Your task to perform on an android device: create a new album in the google photos Image 0: 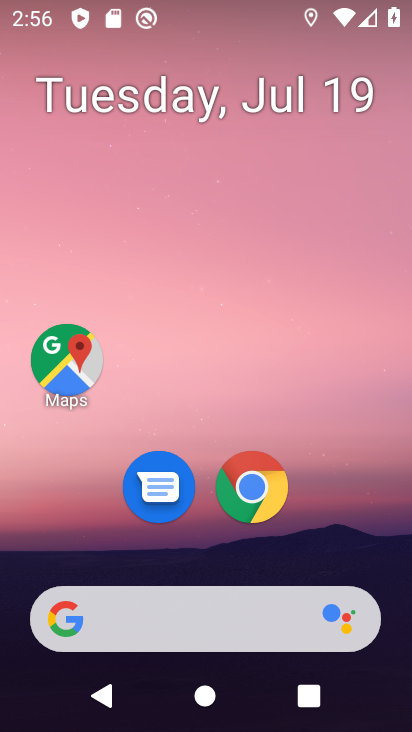
Step 0: drag from (195, 532) to (263, 0)
Your task to perform on an android device: create a new album in the google photos Image 1: 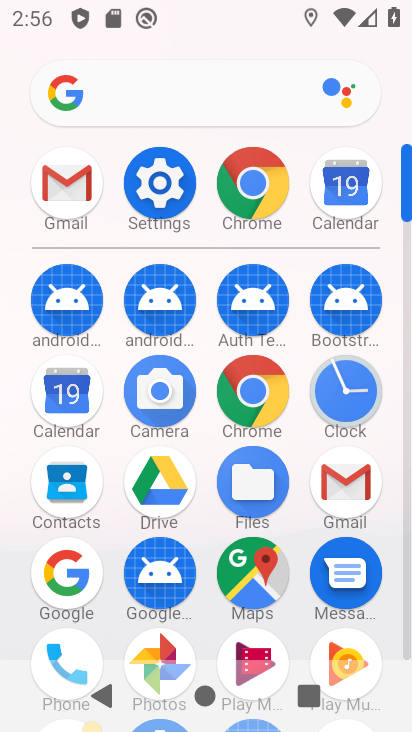
Step 1: click (166, 645)
Your task to perform on an android device: create a new album in the google photos Image 2: 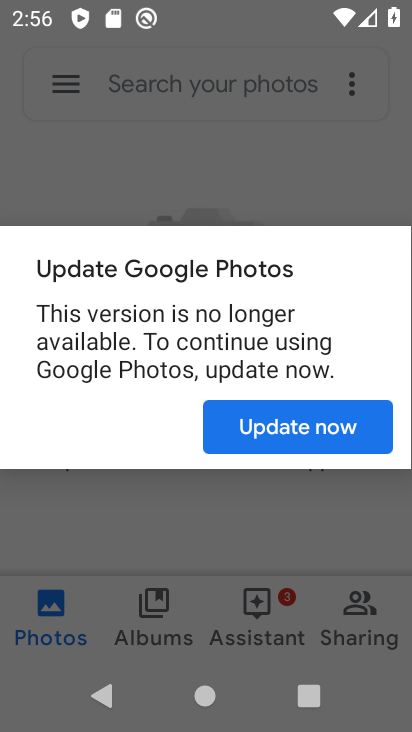
Step 2: click (236, 452)
Your task to perform on an android device: create a new album in the google photos Image 3: 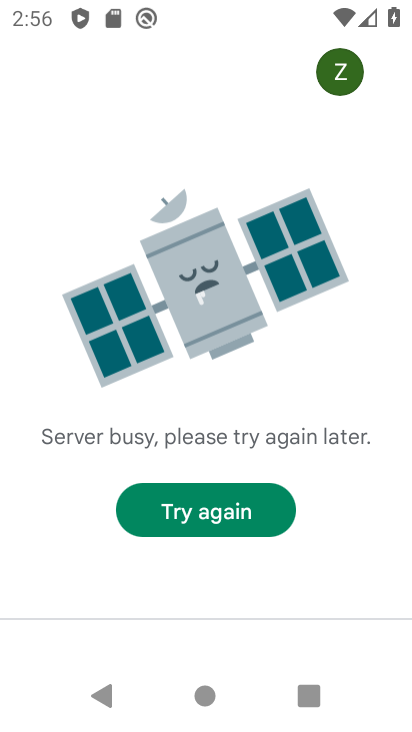
Step 3: press back button
Your task to perform on an android device: create a new album in the google photos Image 4: 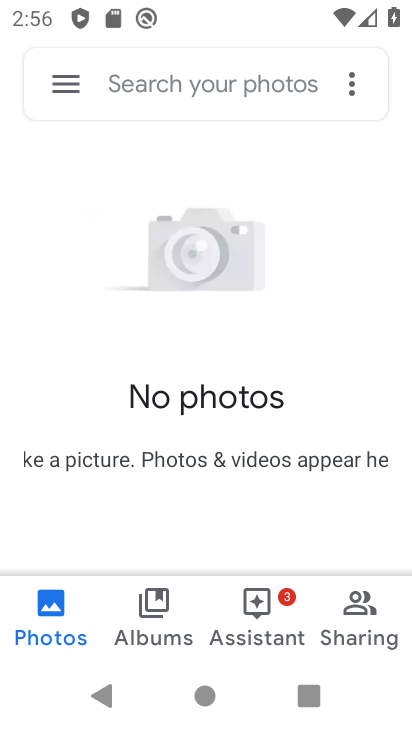
Step 4: click (146, 656)
Your task to perform on an android device: create a new album in the google photos Image 5: 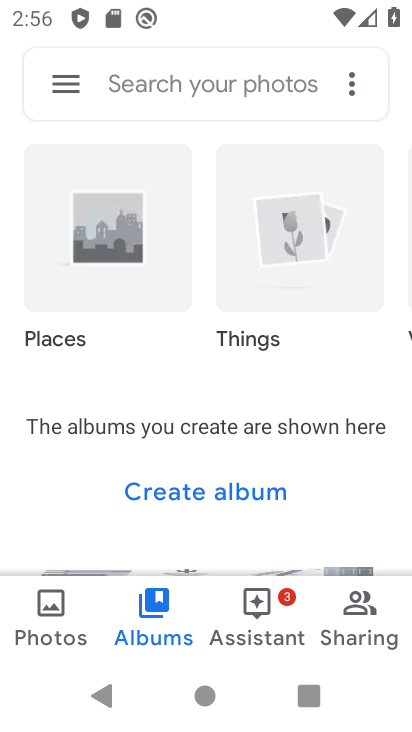
Step 5: click (161, 480)
Your task to perform on an android device: create a new album in the google photos Image 6: 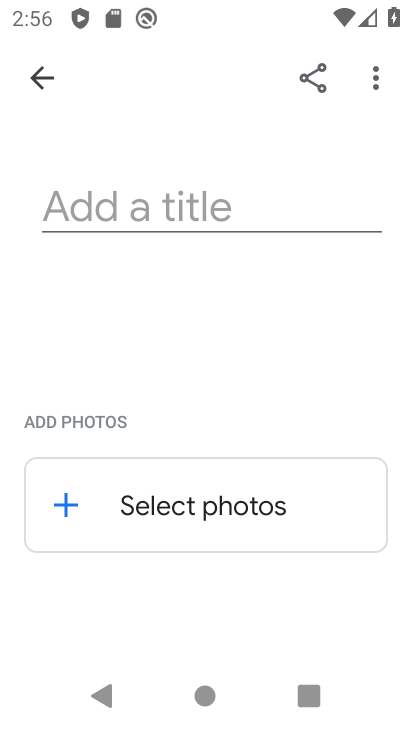
Step 6: click (122, 213)
Your task to perform on an android device: create a new album in the google photos Image 7: 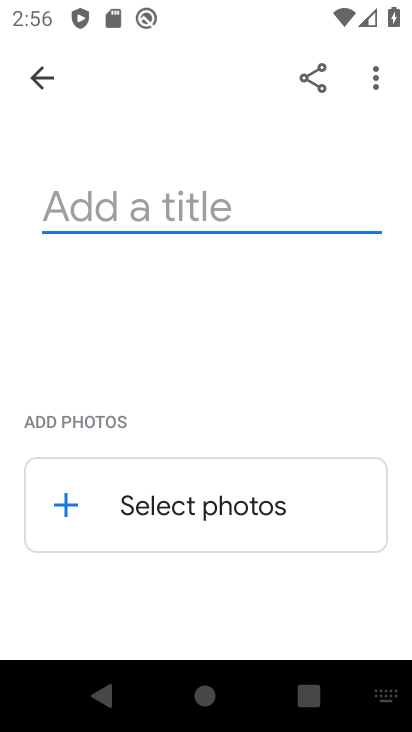
Step 7: type "hvhv"
Your task to perform on an android device: create a new album in the google photos Image 8: 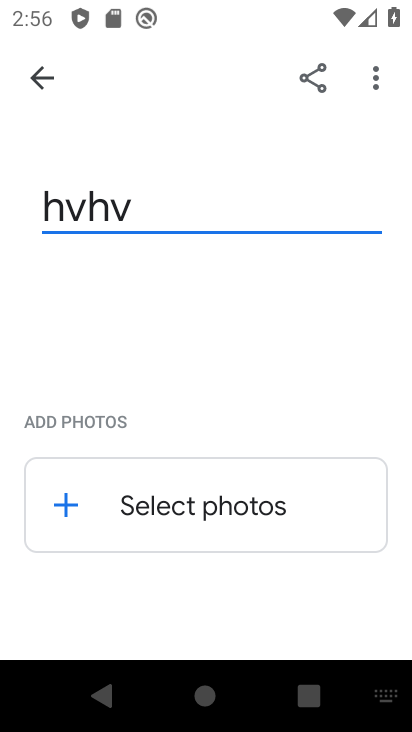
Step 8: click (82, 532)
Your task to perform on an android device: create a new album in the google photos Image 9: 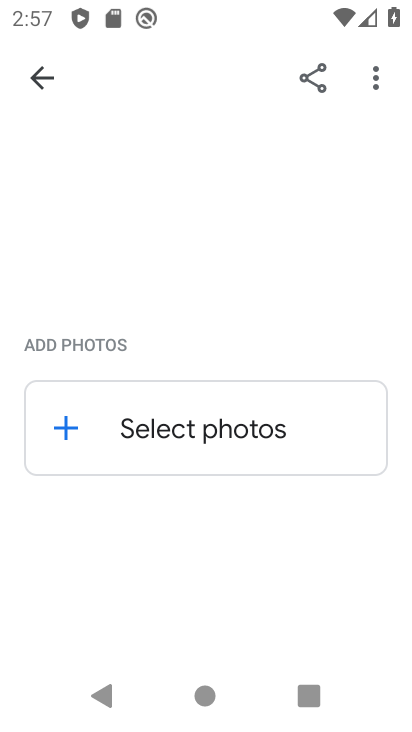
Step 9: click (181, 437)
Your task to perform on an android device: create a new album in the google photos Image 10: 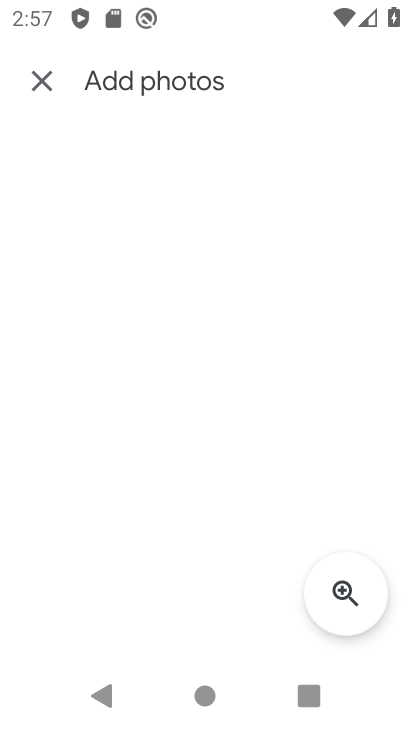
Step 10: task complete